Your task to perform on an android device: Open Amazon Image 0: 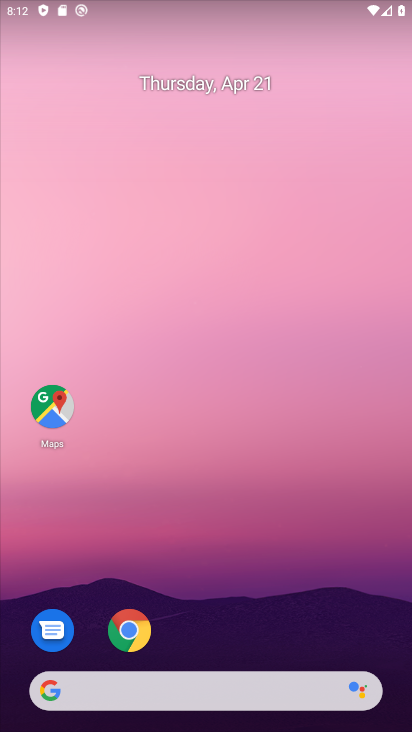
Step 0: click (122, 617)
Your task to perform on an android device: Open Amazon Image 1: 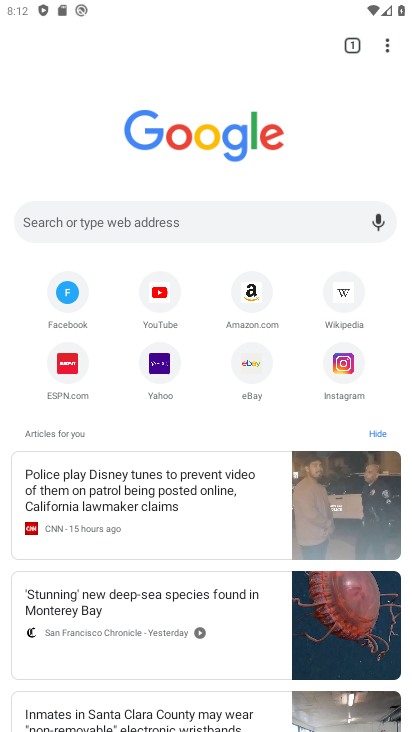
Step 1: click (254, 299)
Your task to perform on an android device: Open Amazon Image 2: 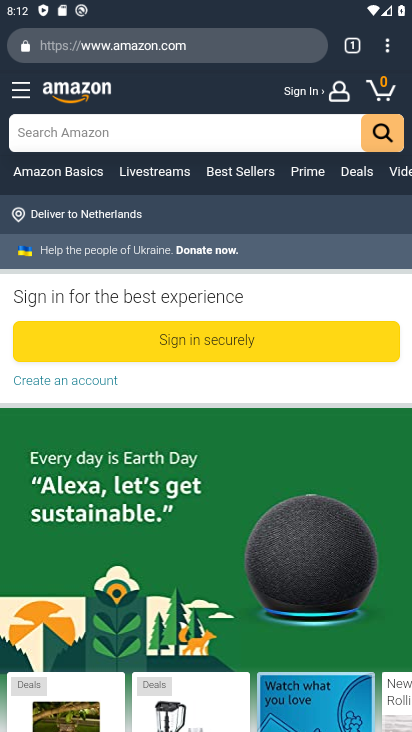
Step 2: task complete